Your task to perform on an android device: Open Chrome and go to the settings page Image 0: 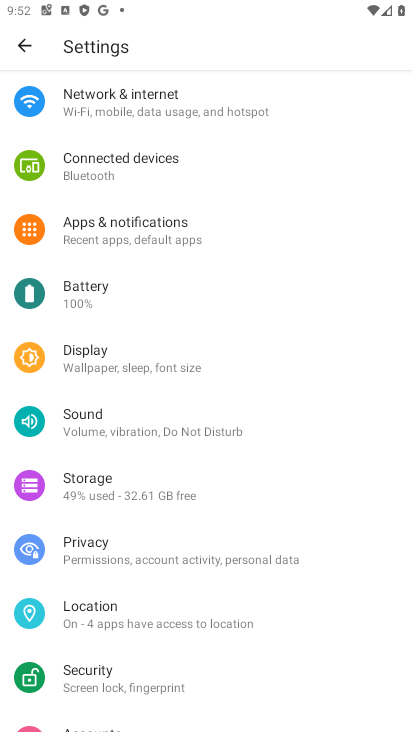
Step 0: press home button
Your task to perform on an android device: Open Chrome and go to the settings page Image 1: 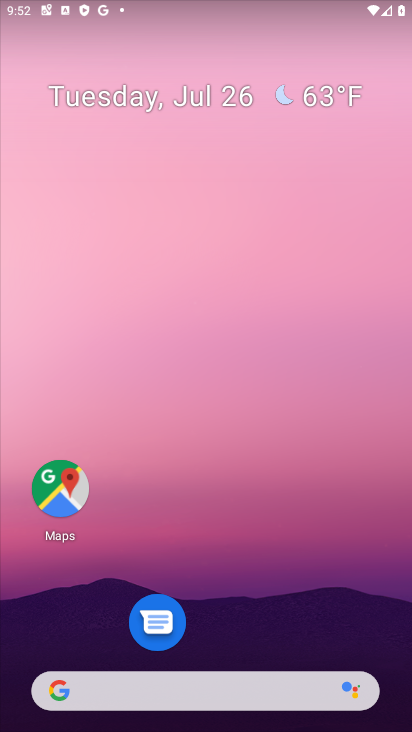
Step 1: drag from (208, 589) to (204, 181)
Your task to perform on an android device: Open Chrome and go to the settings page Image 2: 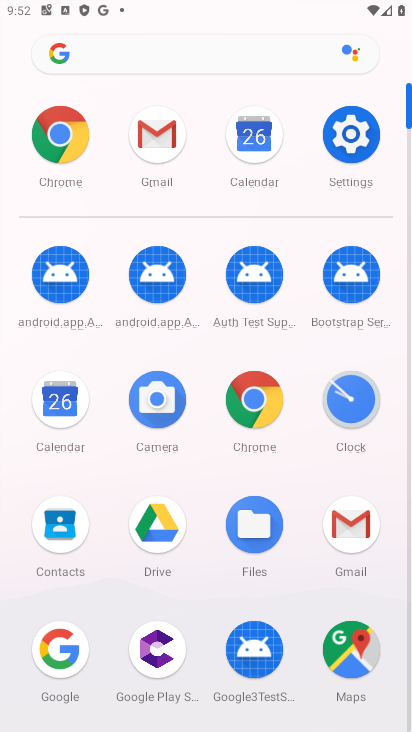
Step 2: click (57, 132)
Your task to perform on an android device: Open Chrome and go to the settings page Image 3: 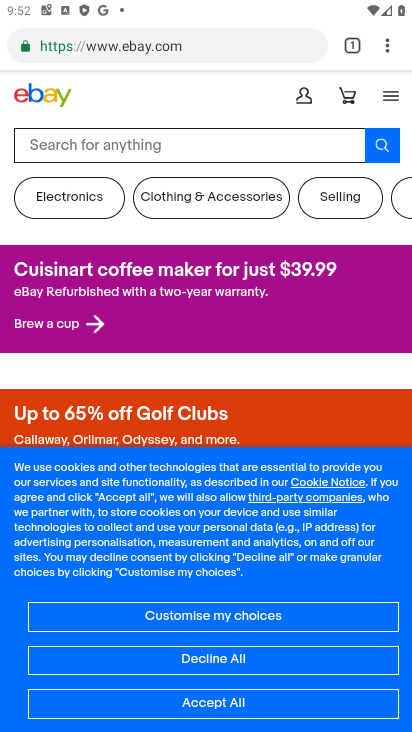
Step 3: task complete